Your task to perform on an android device: Go to location settings Image 0: 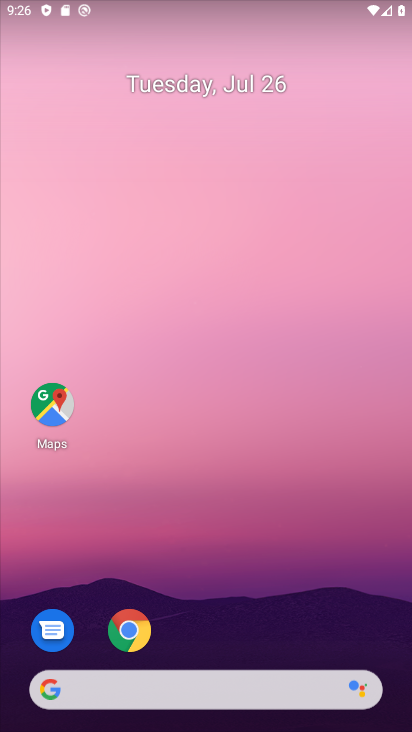
Step 0: drag from (328, 626) to (370, 177)
Your task to perform on an android device: Go to location settings Image 1: 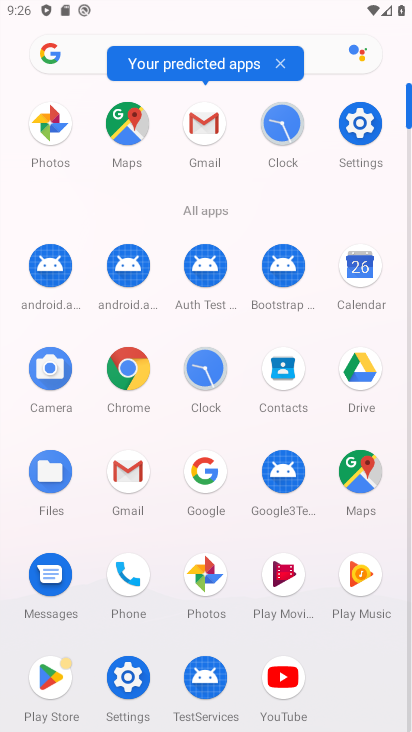
Step 1: click (129, 678)
Your task to perform on an android device: Go to location settings Image 2: 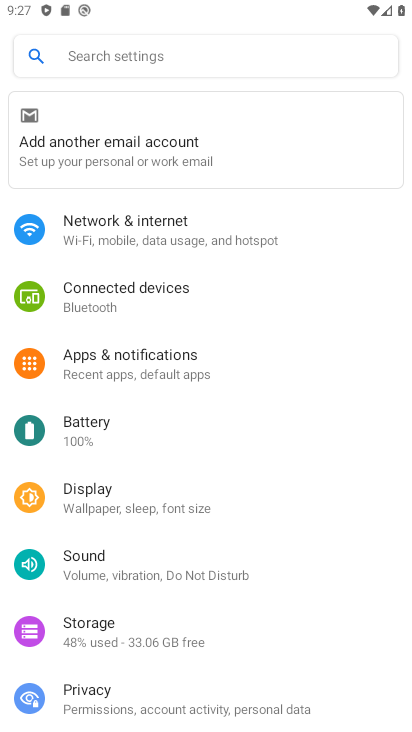
Step 2: drag from (252, 649) to (295, 282)
Your task to perform on an android device: Go to location settings Image 3: 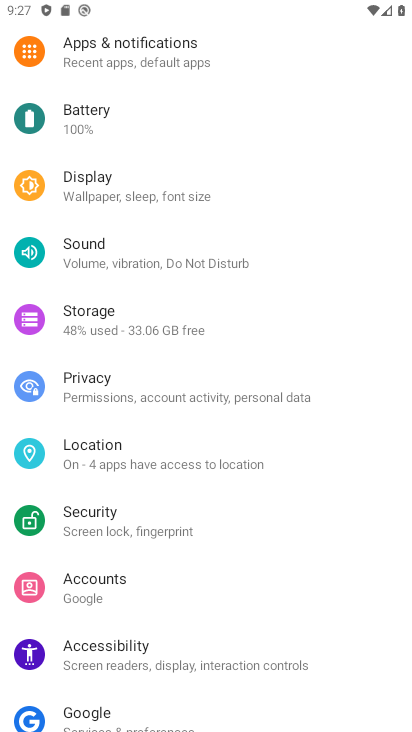
Step 3: click (87, 450)
Your task to perform on an android device: Go to location settings Image 4: 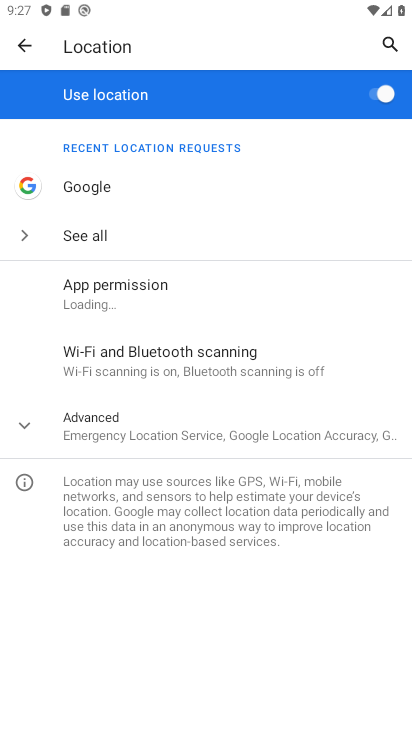
Step 4: click (20, 425)
Your task to perform on an android device: Go to location settings Image 5: 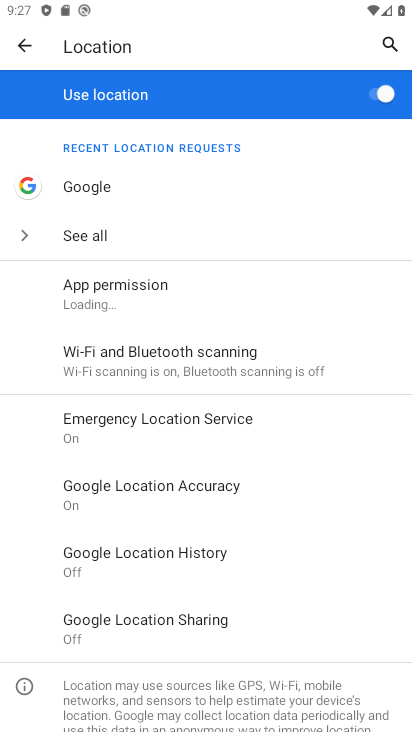
Step 5: task complete